Your task to perform on an android device: toggle location history Image 0: 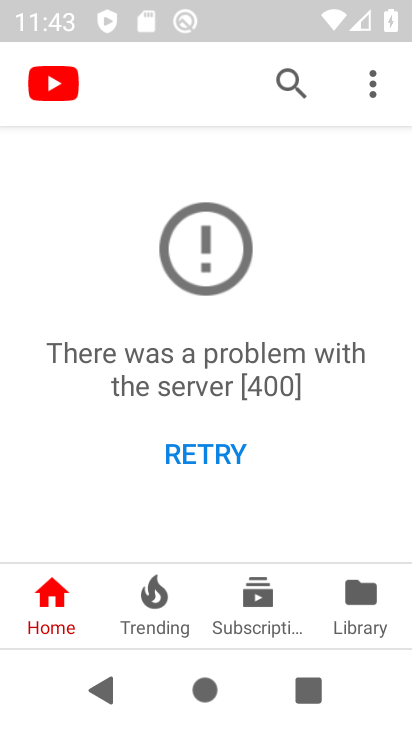
Step 0: press home button
Your task to perform on an android device: toggle location history Image 1: 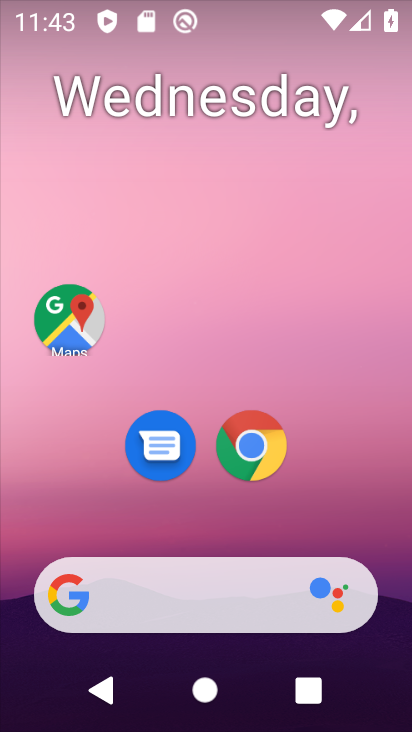
Step 1: drag from (362, 473) to (325, 177)
Your task to perform on an android device: toggle location history Image 2: 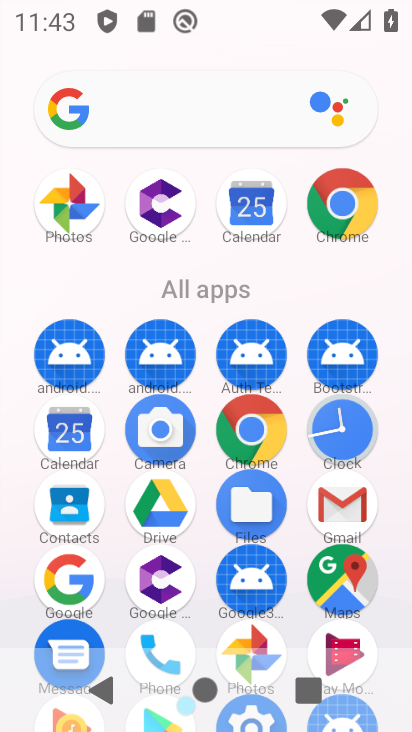
Step 2: drag from (287, 593) to (298, 254)
Your task to perform on an android device: toggle location history Image 3: 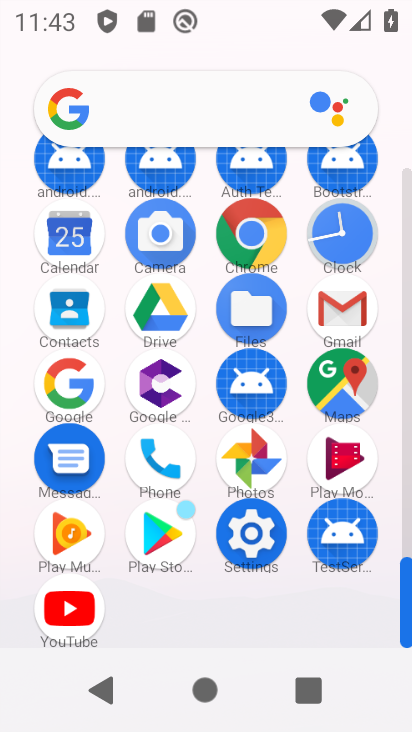
Step 3: click (262, 547)
Your task to perform on an android device: toggle location history Image 4: 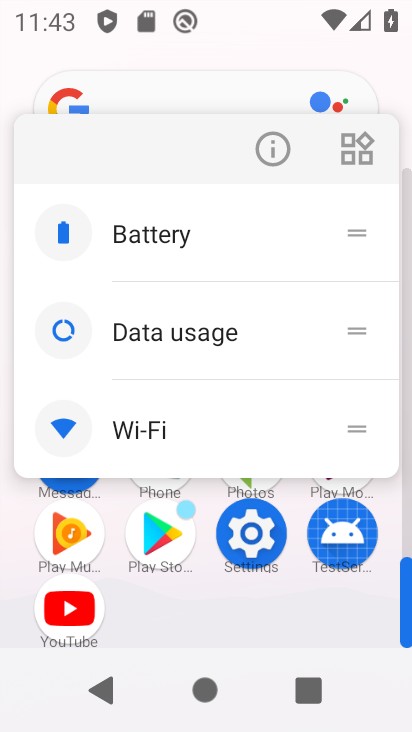
Step 4: click (262, 534)
Your task to perform on an android device: toggle location history Image 5: 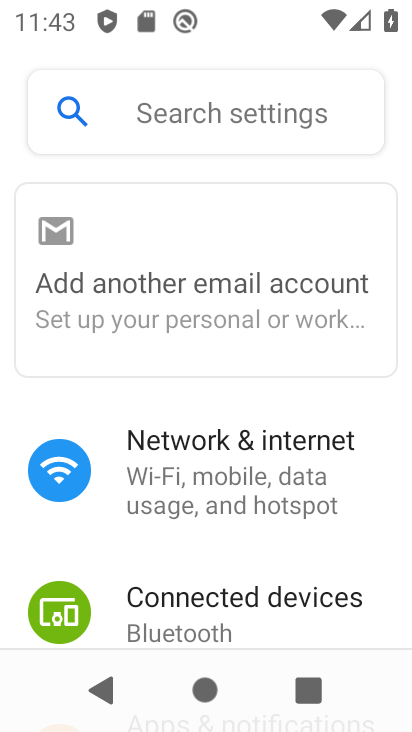
Step 5: drag from (276, 544) to (277, 207)
Your task to perform on an android device: toggle location history Image 6: 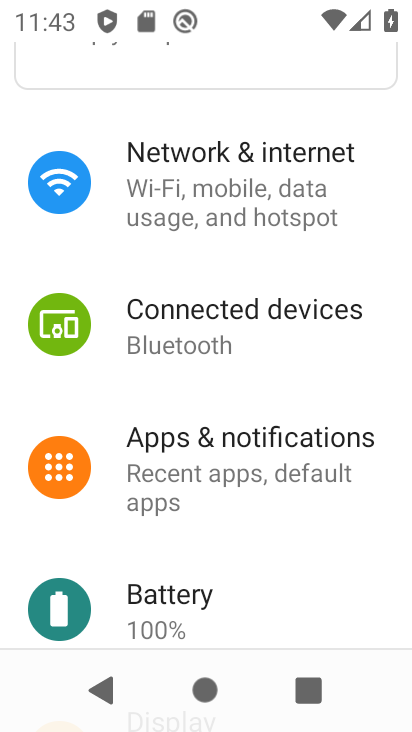
Step 6: drag from (269, 607) to (247, 208)
Your task to perform on an android device: toggle location history Image 7: 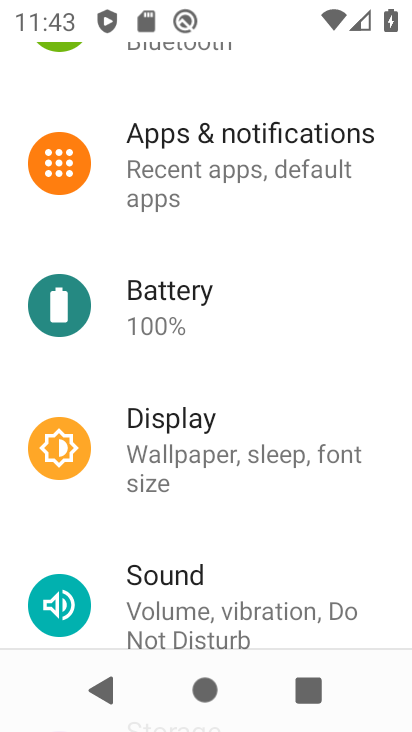
Step 7: drag from (275, 498) to (230, 123)
Your task to perform on an android device: toggle location history Image 8: 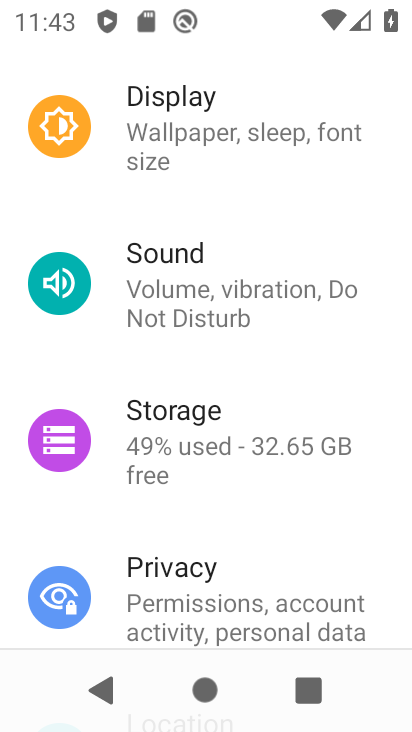
Step 8: drag from (268, 489) to (280, 149)
Your task to perform on an android device: toggle location history Image 9: 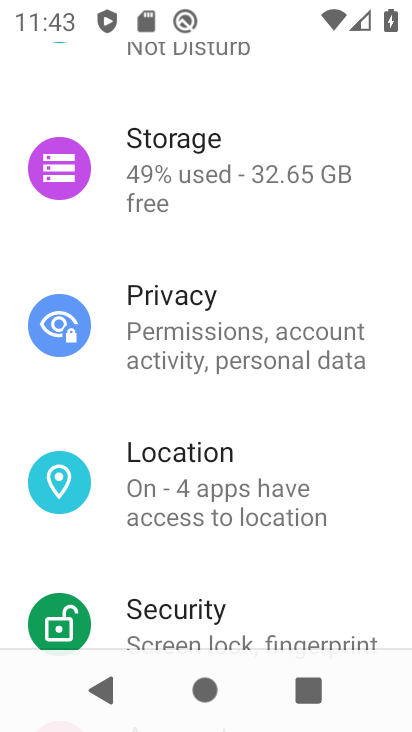
Step 9: click (231, 461)
Your task to perform on an android device: toggle location history Image 10: 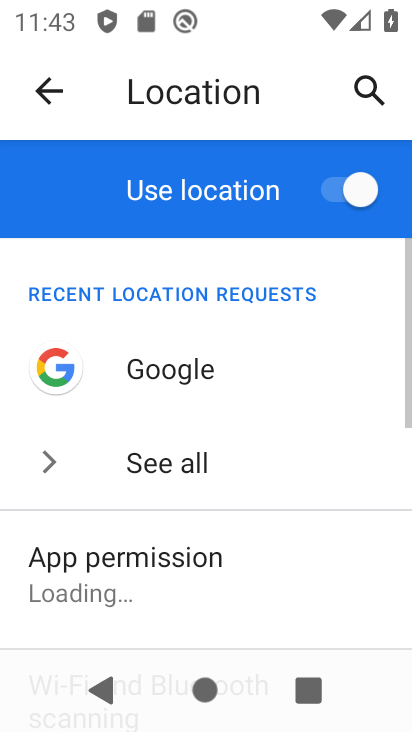
Step 10: drag from (278, 552) to (335, 65)
Your task to perform on an android device: toggle location history Image 11: 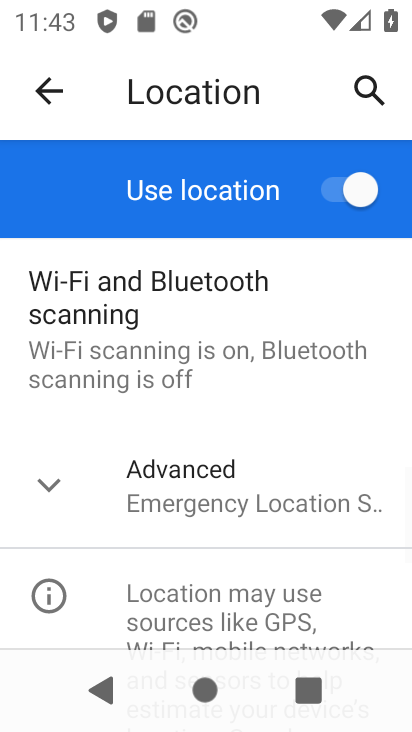
Step 11: click (245, 487)
Your task to perform on an android device: toggle location history Image 12: 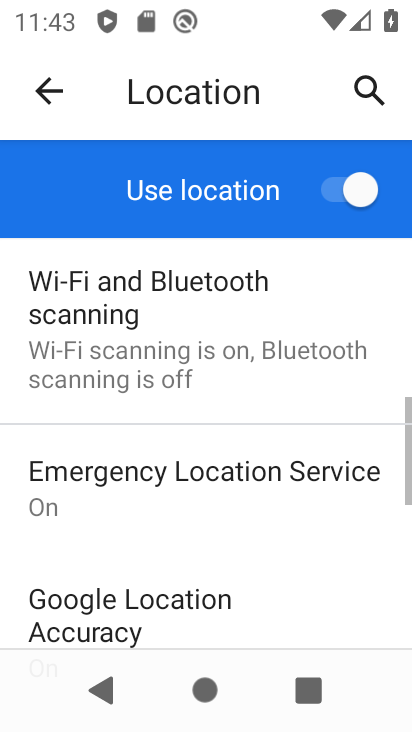
Step 12: drag from (303, 598) to (268, 172)
Your task to perform on an android device: toggle location history Image 13: 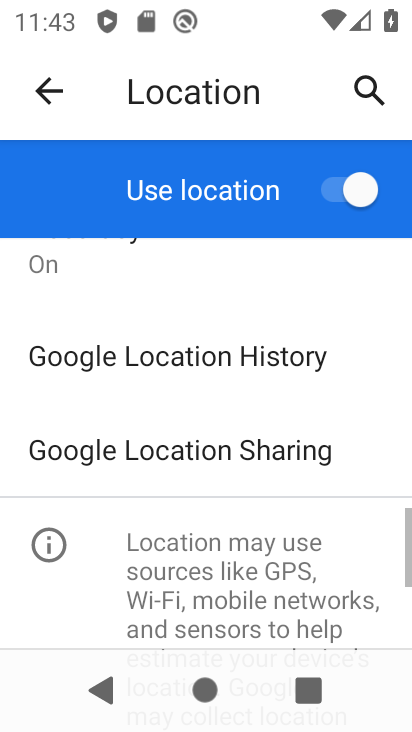
Step 13: click (215, 368)
Your task to perform on an android device: toggle location history Image 14: 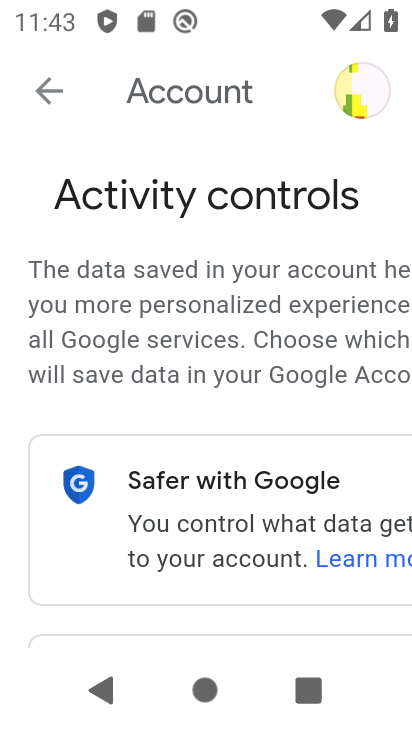
Step 14: drag from (258, 515) to (255, 160)
Your task to perform on an android device: toggle location history Image 15: 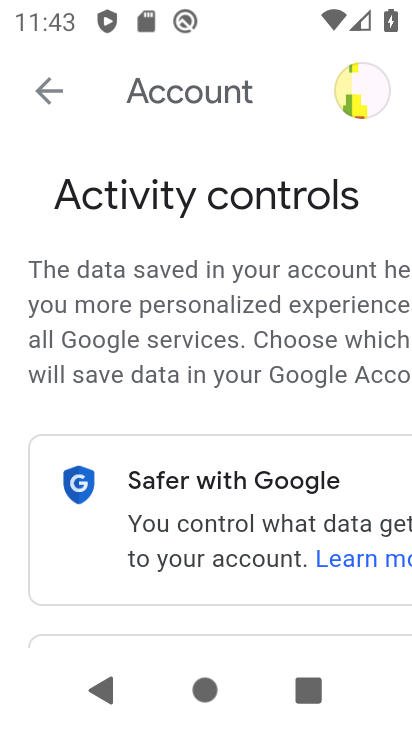
Step 15: drag from (238, 435) to (264, 156)
Your task to perform on an android device: toggle location history Image 16: 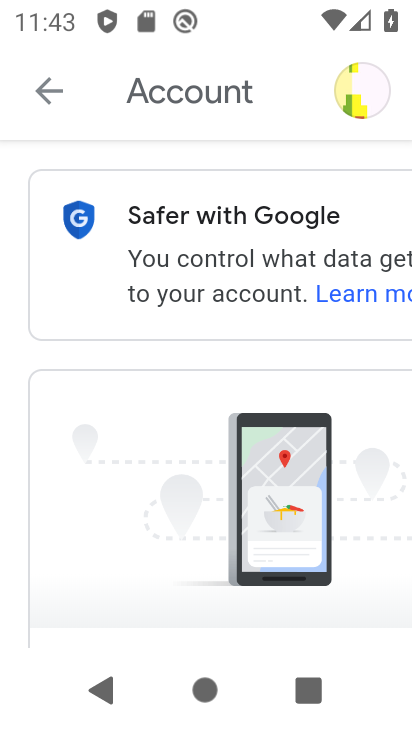
Step 16: drag from (242, 520) to (289, 178)
Your task to perform on an android device: toggle location history Image 17: 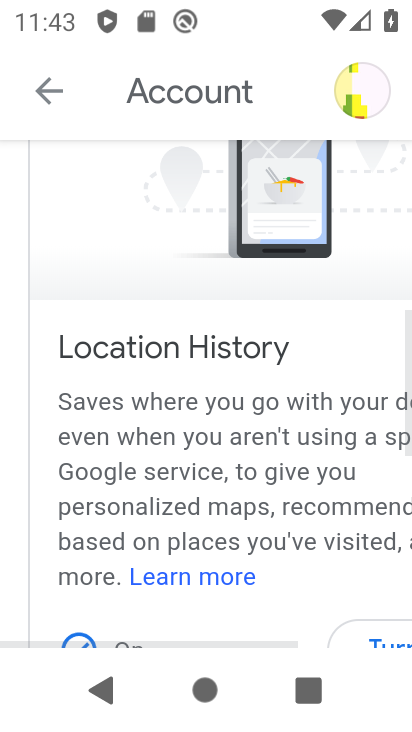
Step 17: drag from (233, 430) to (256, 166)
Your task to perform on an android device: toggle location history Image 18: 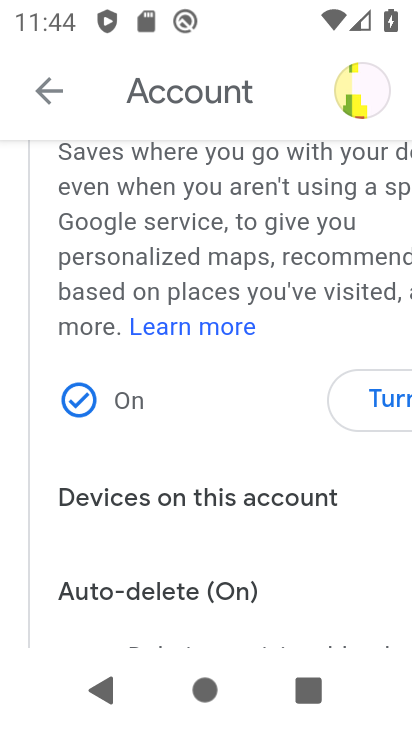
Step 18: click (390, 400)
Your task to perform on an android device: toggle location history Image 19: 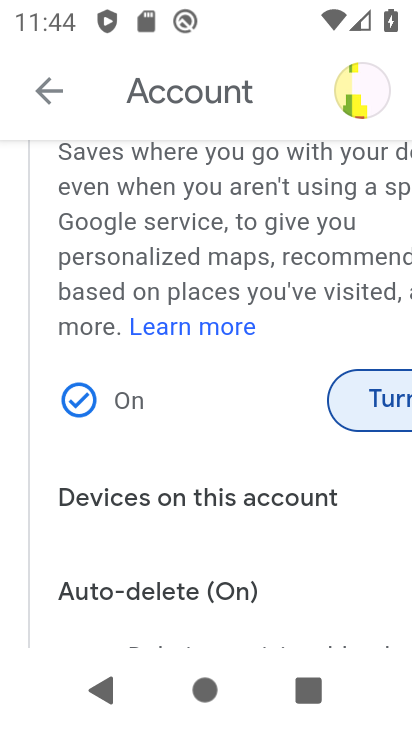
Step 19: click (390, 400)
Your task to perform on an android device: toggle location history Image 20: 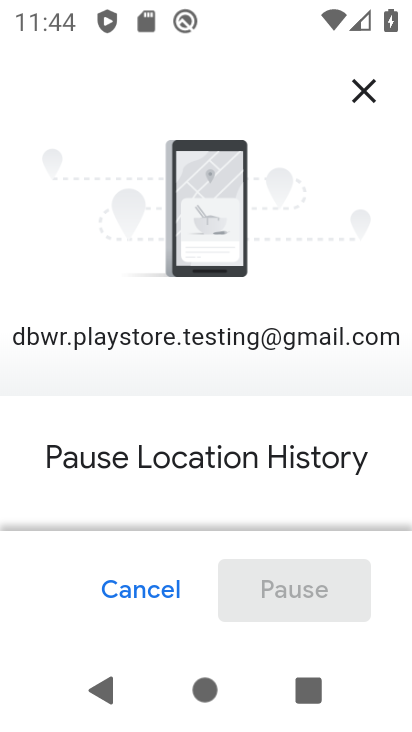
Step 20: drag from (245, 496) to (253, 111)
Your task to perform on an android device: toggle location history Image 21: 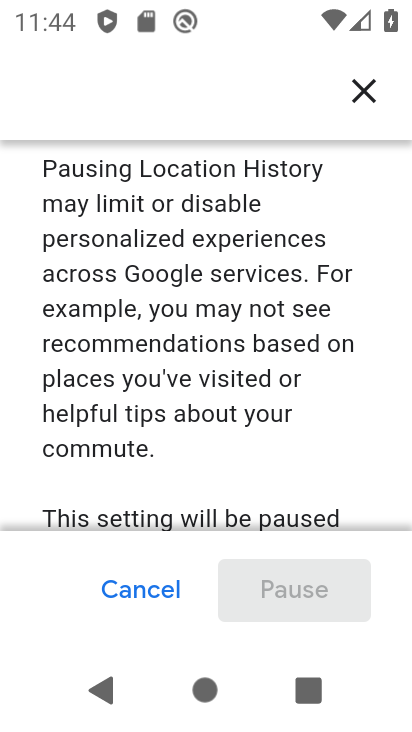
Step 21: drag from (170, 447) to (243, 147)
Your task to perform on an android device: toggle location history Image 22: 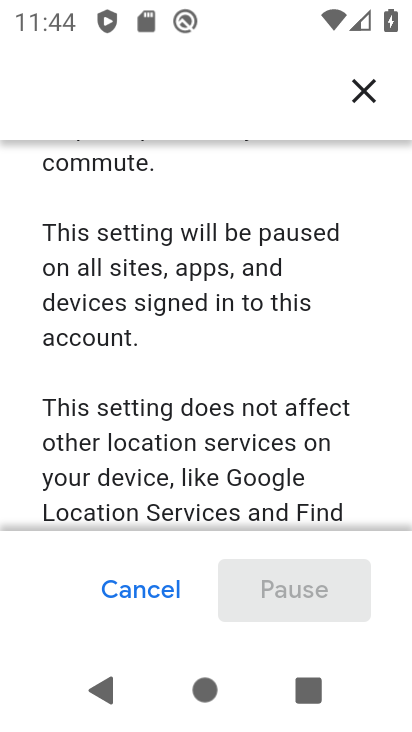
Step 22: drag from (241, 445) to (288, 154)
Your task to perform on an android device: toggle location history Image 23: 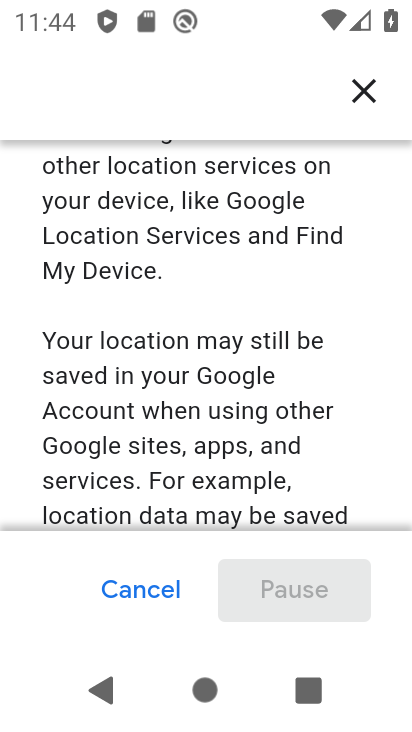
Step 23: drag from (261, 388) to (303, 73)
Your task to perform on an android device: toggle location history Image 24: 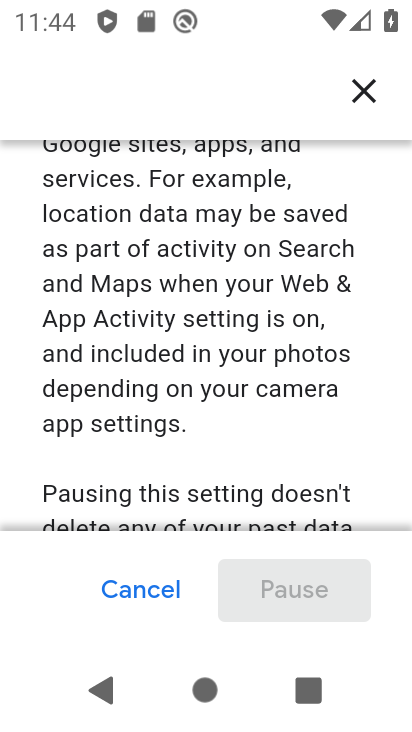
Step 24: drag from (276, 445) to (286, 110)
Your task to perform on an android device: toggle location history Image 25: 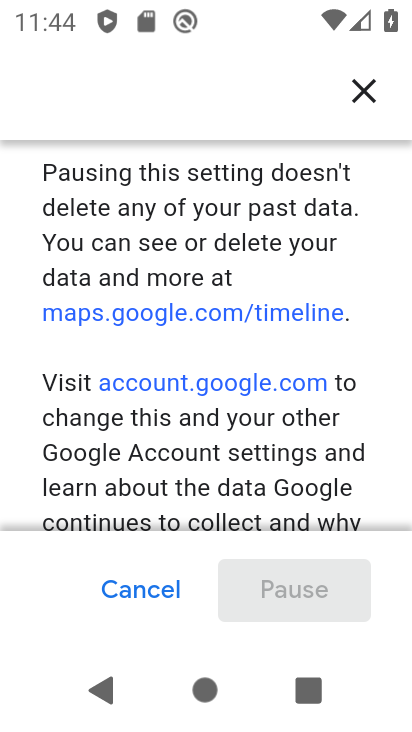
Step 25: drag from (269, 459) to (281, 174)
Your task to perform on an android device: toggle location history Image 26: 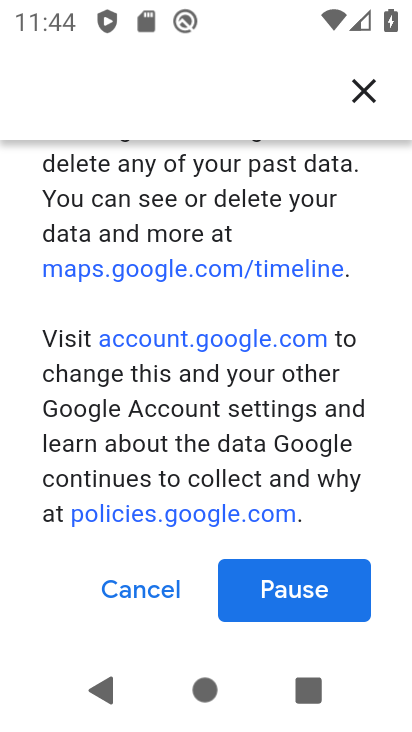
Step 26: click (303, 594)
Your task to perform on an android device: toggle location history Image 27: 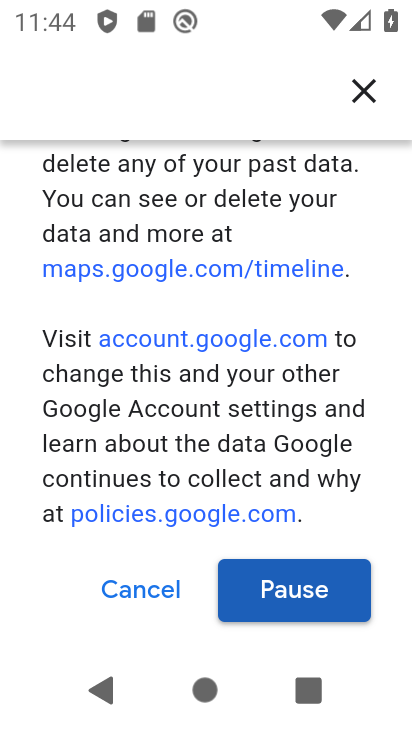
Step 27: click (303, 594)
Your task to perform on an android device: toggle location history Image 28: 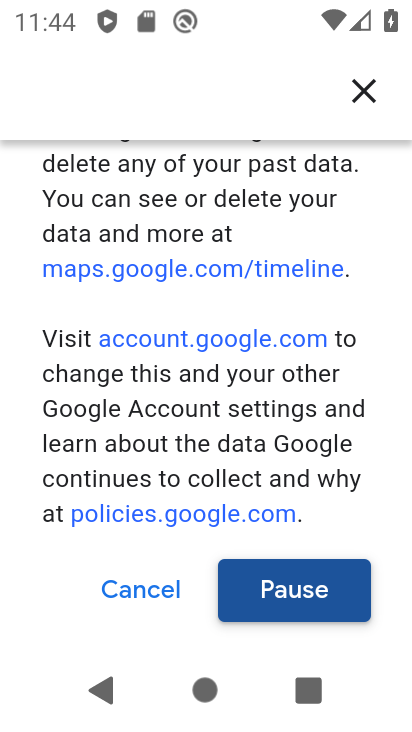
Step 28: click (303, 592)
Your task to perform on an android device: toggle location history Image 29: 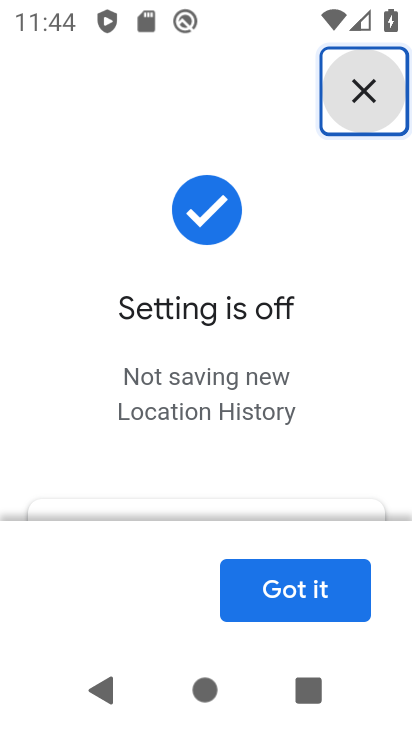
Step 29: task complete